Your task to perform on an android device: open chrome privacy settings Image 0: 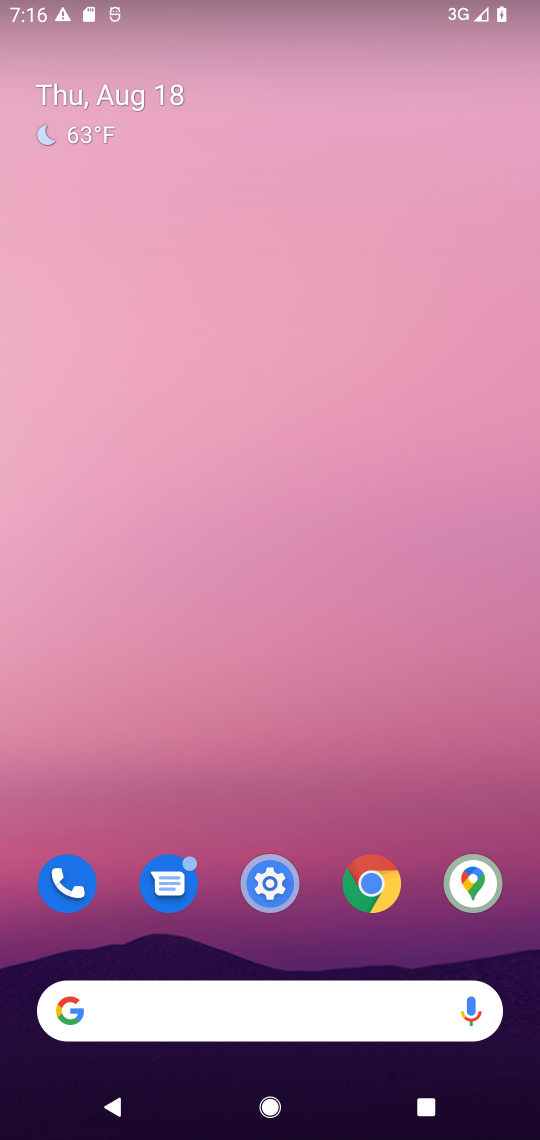
Step 0: click (379, 873)
Your task to perform on an android device: open chrome privacy settings Image 1: 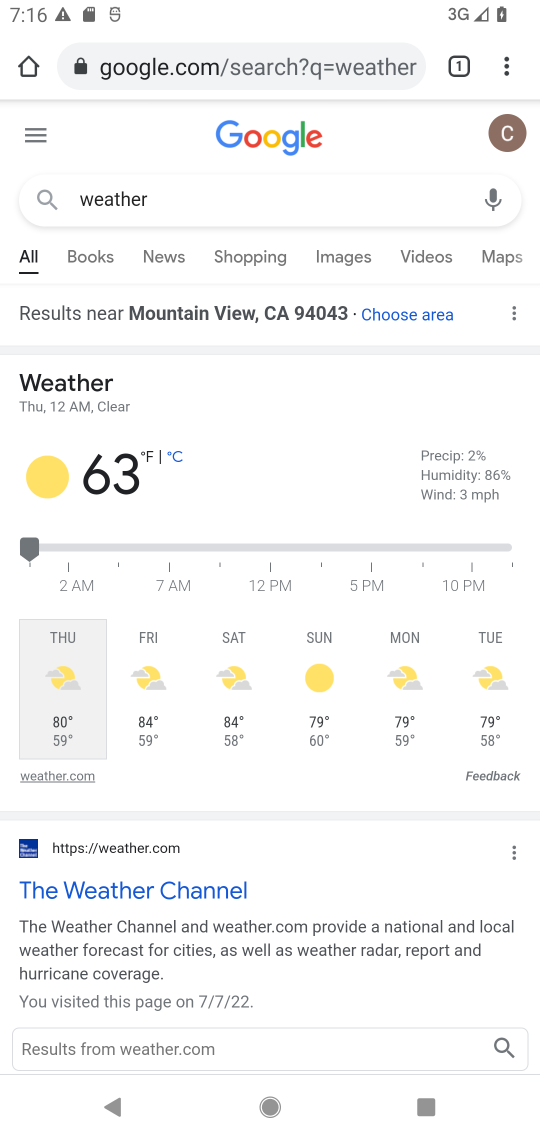
Step 1: click (509, 54)
Your task to perform on an android device: open chrome privacy settings Image 2: 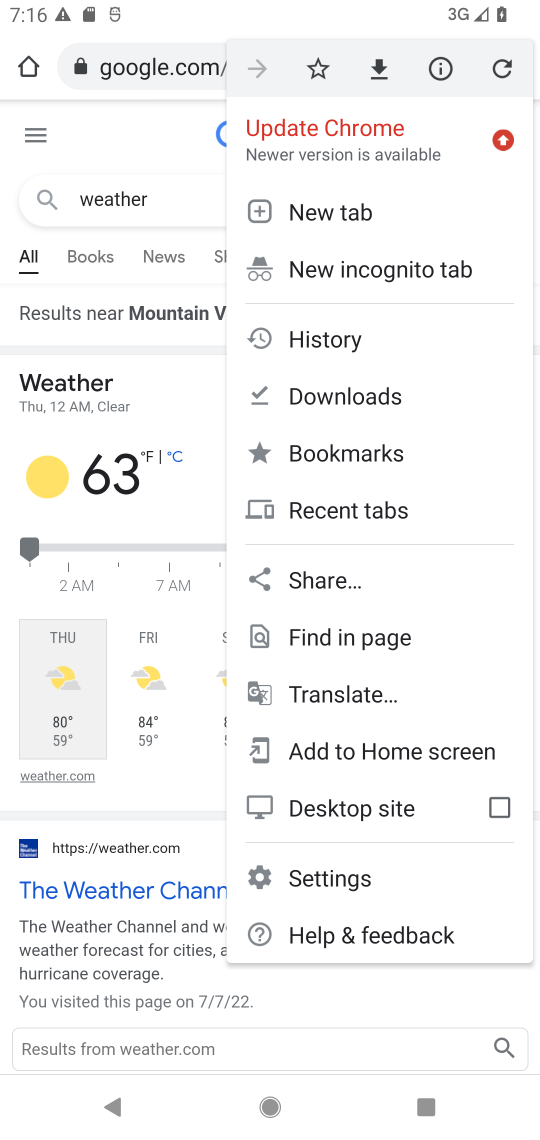
Step 2: click (308, 877)
Your task to perform on an android device: open chrome privacy settings Image 3: 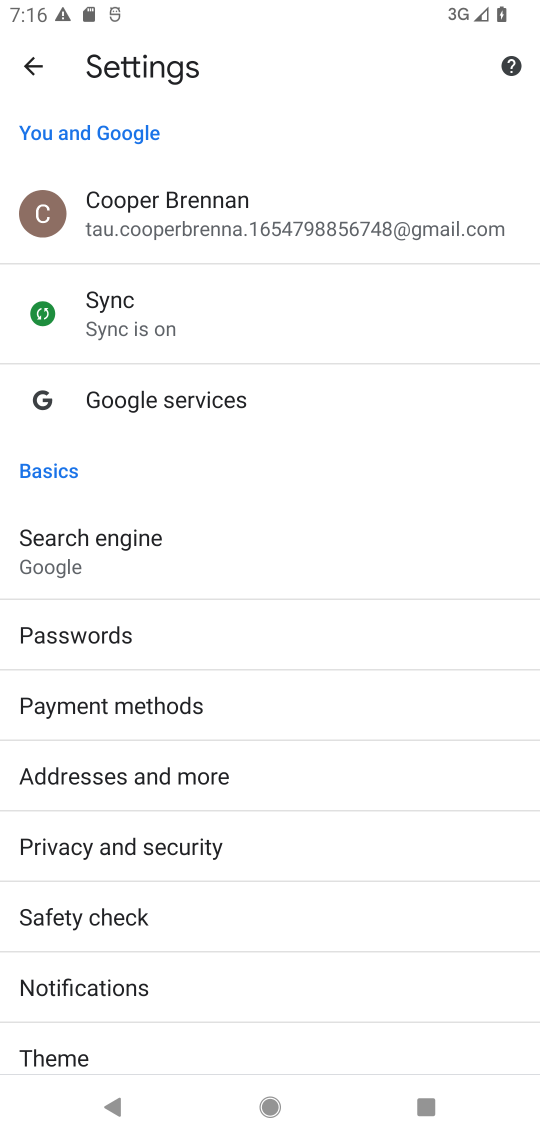
Step 3: drag from (378, 924) to (406, 319)
Your task to perform on an android device: open chrome privacy settings Image 4: 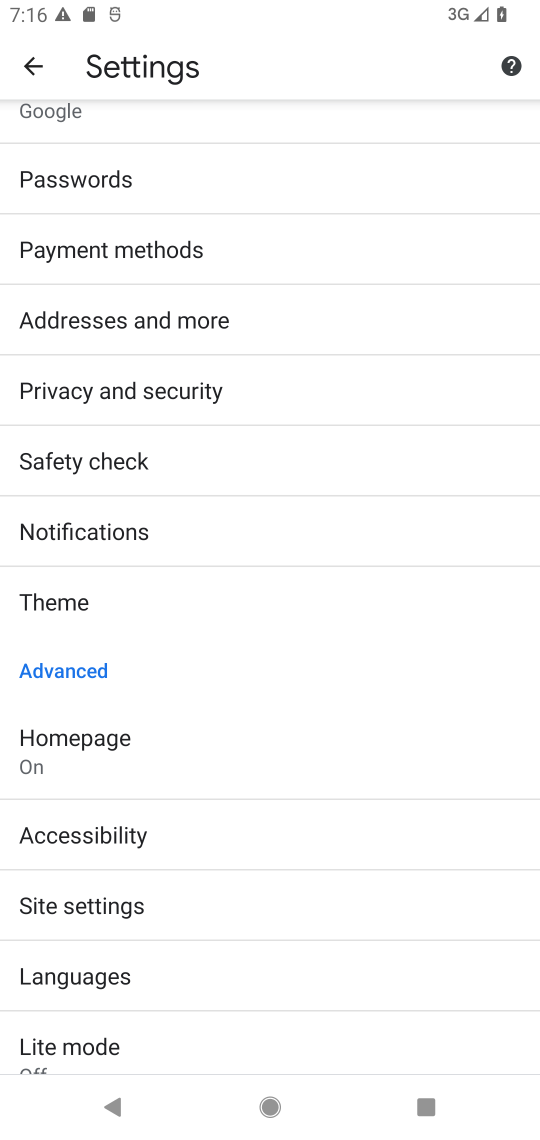
Step 4: drag from (346, 976) to (275, 376)
Your task to perform on an android device: open chrome privacy settings Image 5: 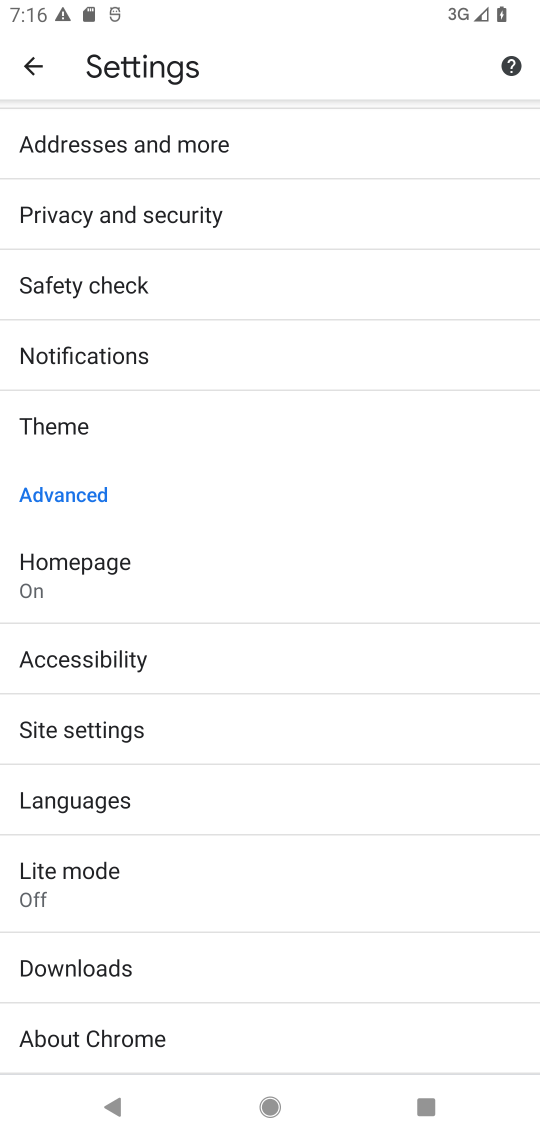
Step 5: click (119, 210)
Your task to perform on an android device: open chrome privacy settings Image 6: 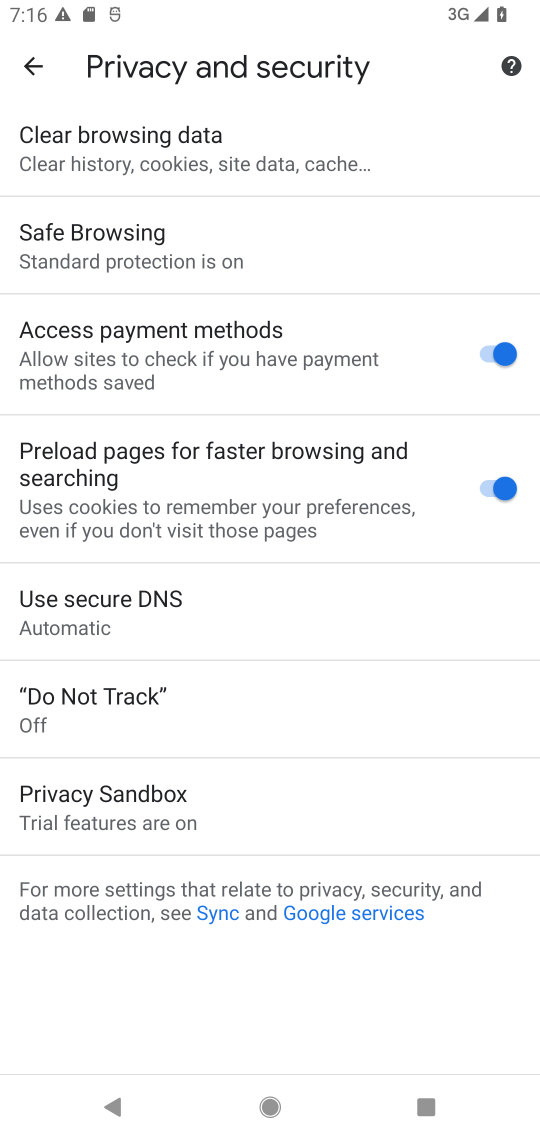
Step 6: task complete